Your task to perform on an android device: turn on translation in the chrome app Image 0: 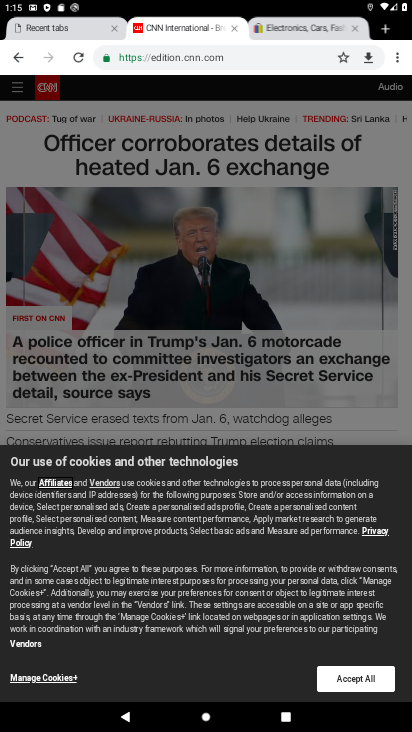
Step 0: press back button
Your task to perform on an android device: turn on translation in the chrome app Image 1: 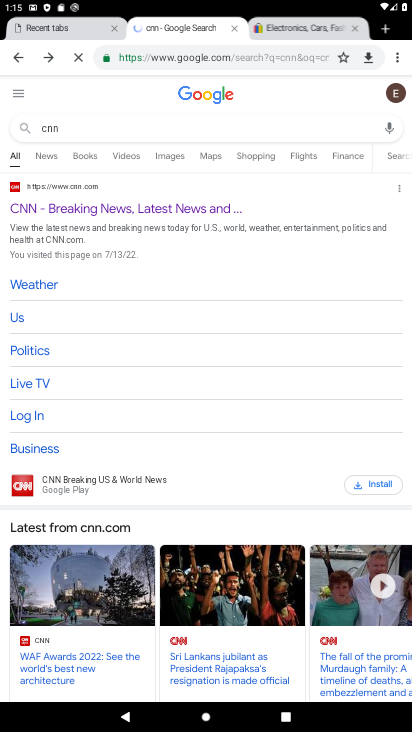
Step 1: click (390, 29)
Your task to perform on an android device: turn on translation in the chrome app Image 2: 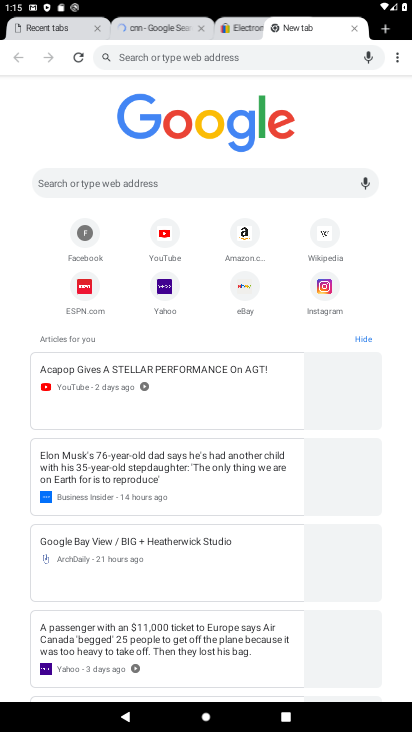
Step 2: click (400, 52)
Your task to perform on an android device: turn on translation in the chrome app Image 3: 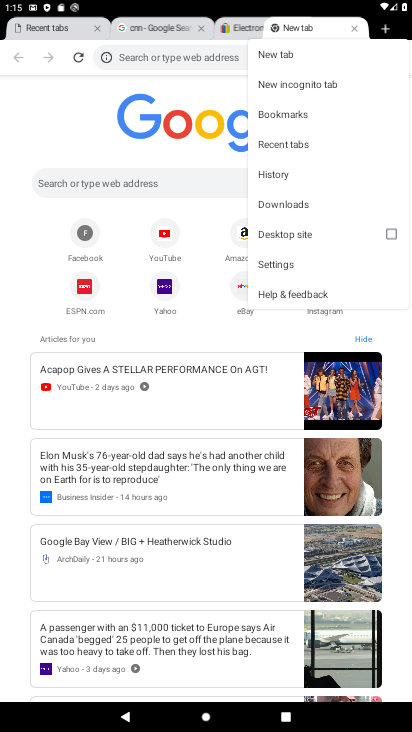
Step 3: click (300, 266)
Your task to perform on an android device: turn on translation in the chrome app Image 4: 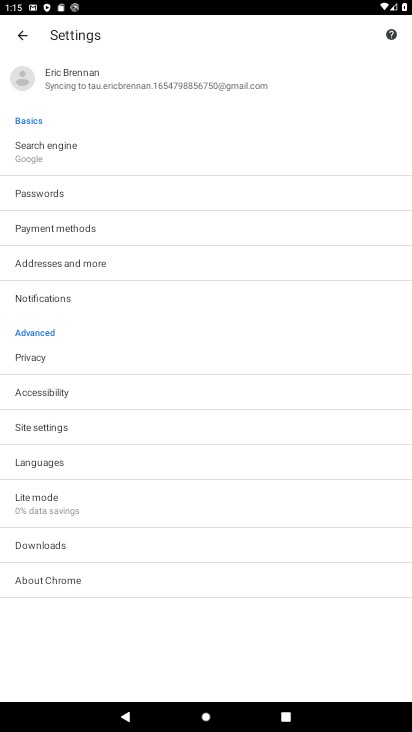
Step 4: click (91, 467)
Your task to perform on an android device: turn on translation in the chrome app Image 5: 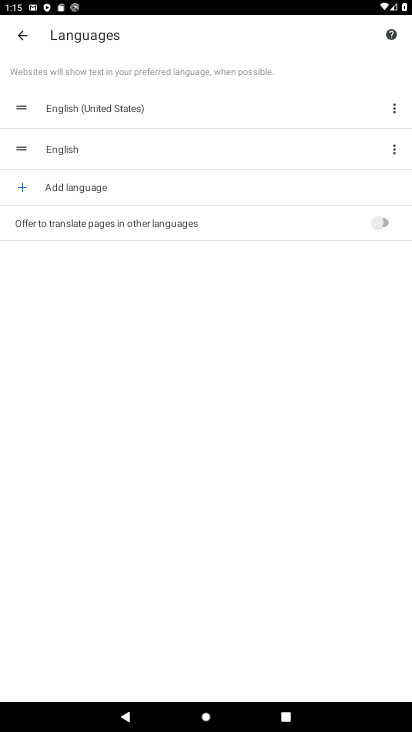
Step 5: click (377, 223)
Your task to perform on an android device: turn on translation in the chrome app Image 6: 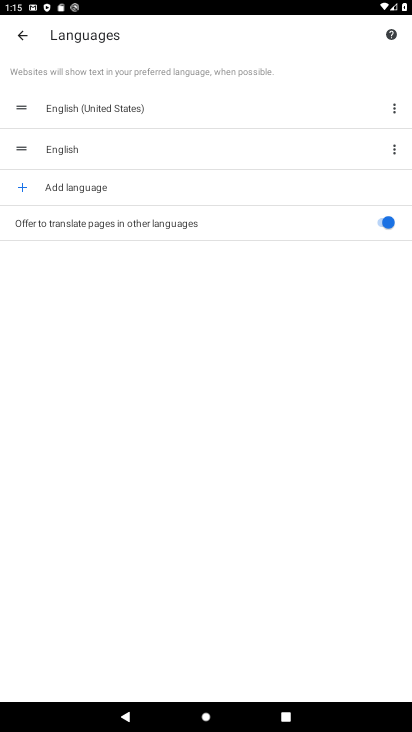
Step 6: task complete